Your task to perform on an android device: add a contact Image 0: 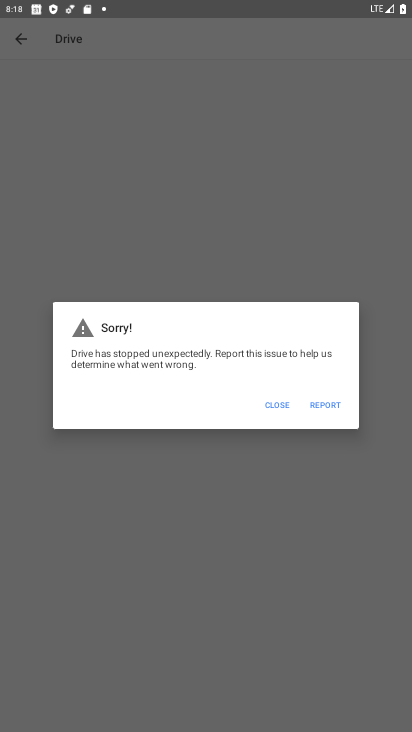
Step 0: press home button
Your task to perform on an android device: add a contact Image 1: 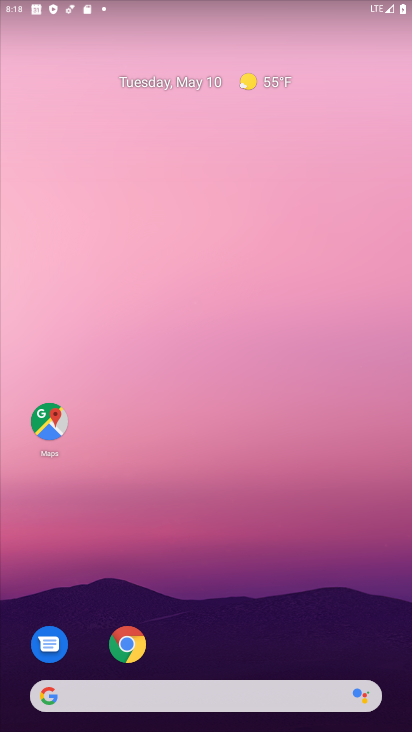
Step 1: drag from (270, 542) to (318, 89)
Your task to perform on an android device: add a contact Image 2: 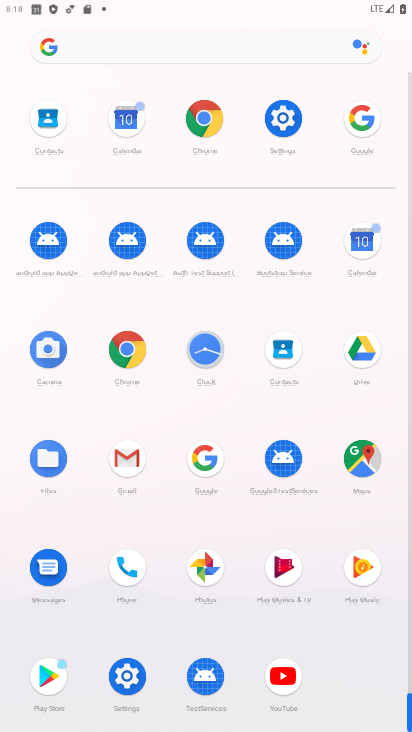
Step 2: click (275, 363)
Your task to perform on an android device: add a contact Image 3: 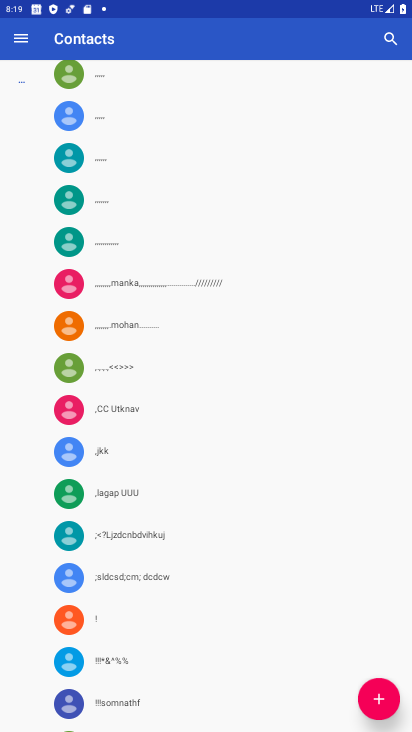
Step 3: click (378, 719)
Your task to perform on an android device: add a contact Image 4: 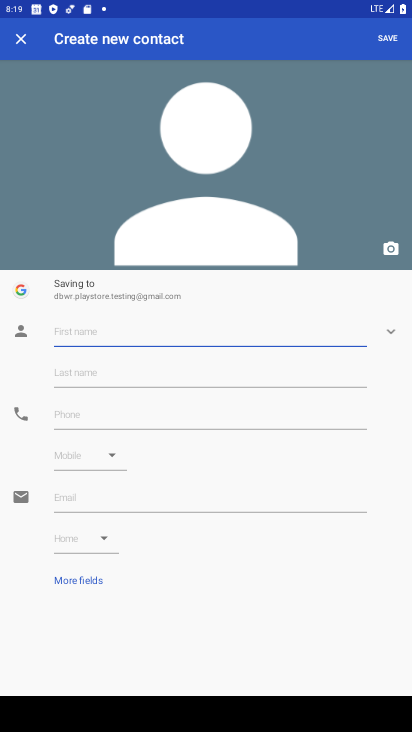
Step 4: type "iugiuihi"
Your task to perform on an android device: add a contact Image 5: 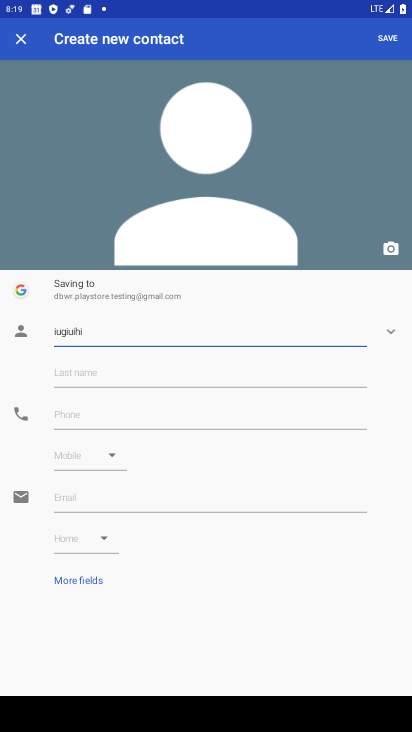
Step 5: click (179, 417)
Your task to perform on an android device: add a contact Image 6: 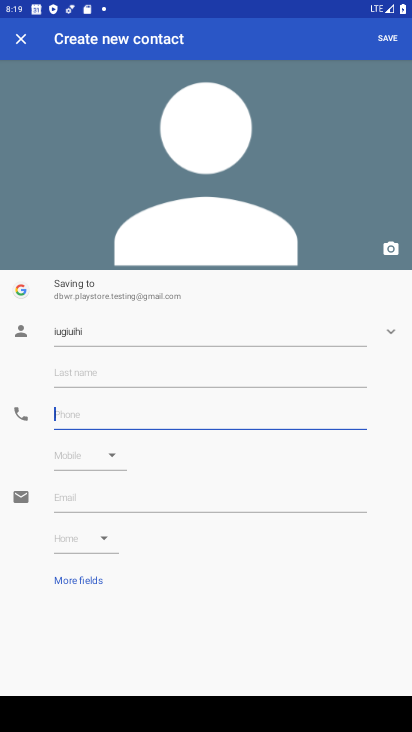
Step 6: type "987098096"
Your task to perform on an android device: add a contact Image 7: 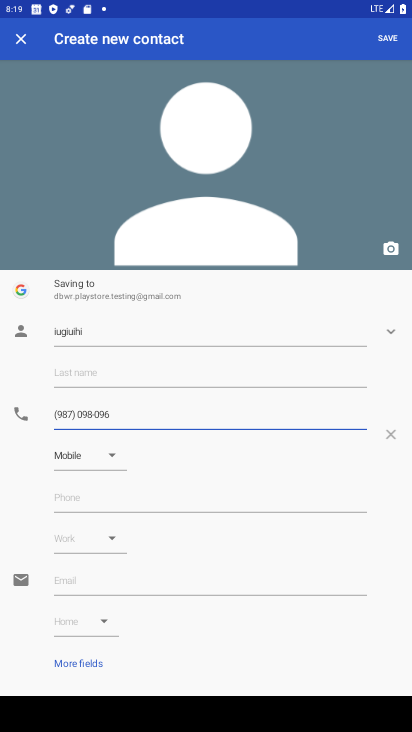
Step 7: task complete